Your task to perform on an android device: toggle location history Image 0: 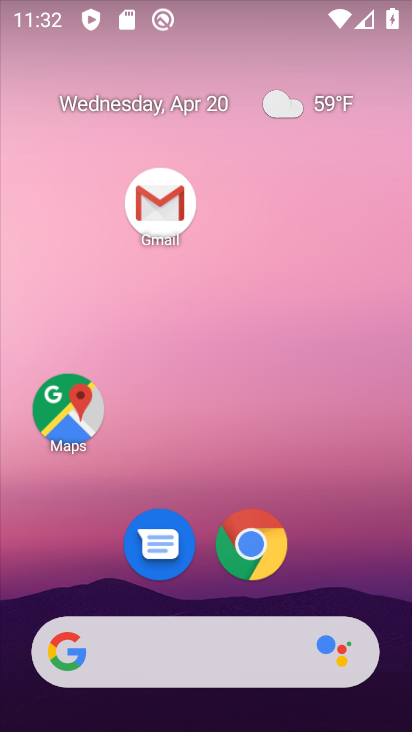
Step 0: drag from (291, 609) to (266, 67)
Your task to perform on an android device: toggle location history Image 1: 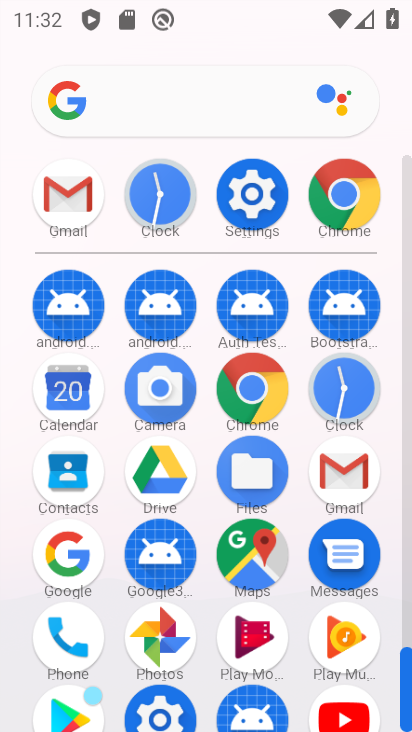
Step 1: click (266, 201)
Your task to perform on an android device: toggle location history Image 2: 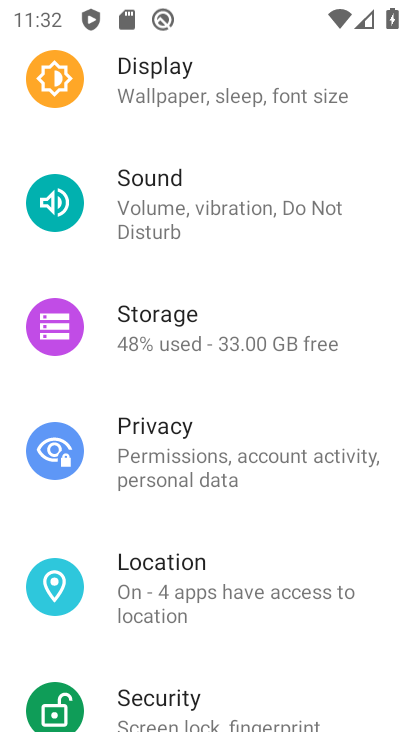
Step 2: click (252, 597)
Your task to perform on an android device: toggle location history Image 3: 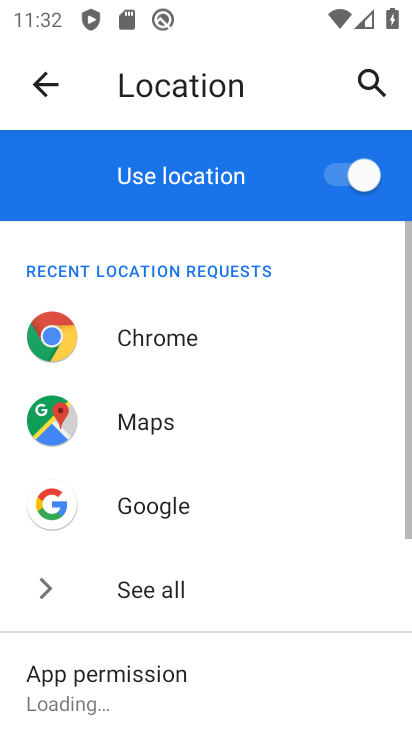
Step 3: drag from (252, 597) to (232, 49)
Your task to perform on an android device: toggle location history Image 4: 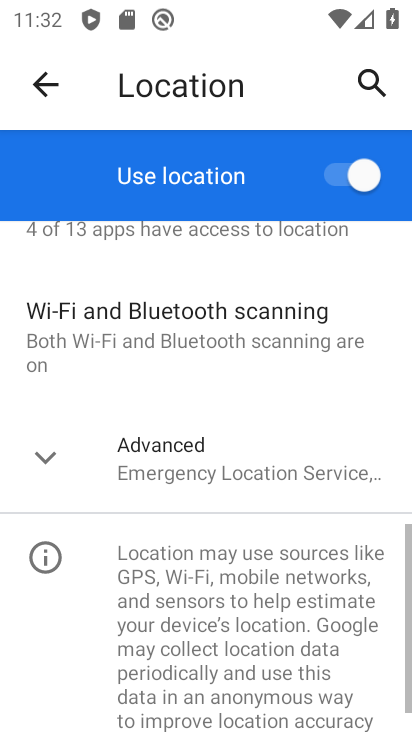
Step 4: click (227, 452)
Your task to perform on an android device: toggle location history Image 5: 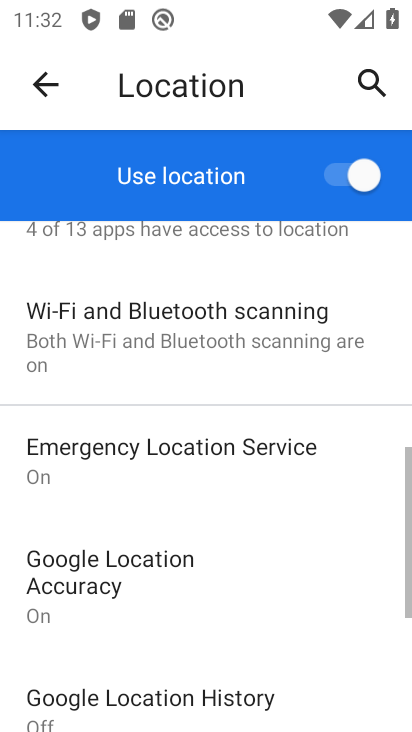
Step 5: drag from (225, 610) to (235, 170)
Your task to perform on an android device: toggle location history Image 6: 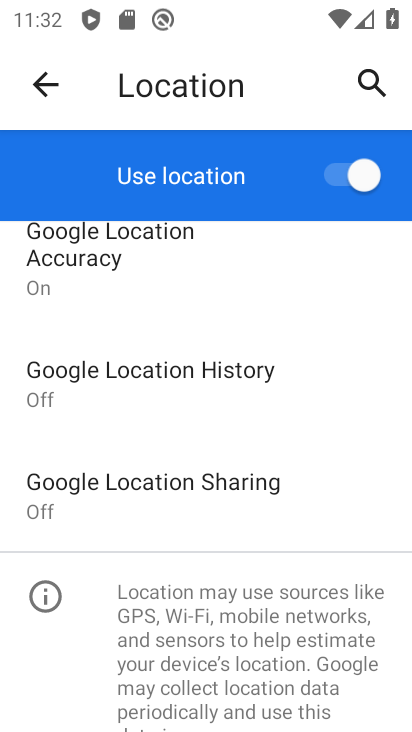
Step 6: click (150, 367)
Your task to perform on an android device: toggle location history Image 7: 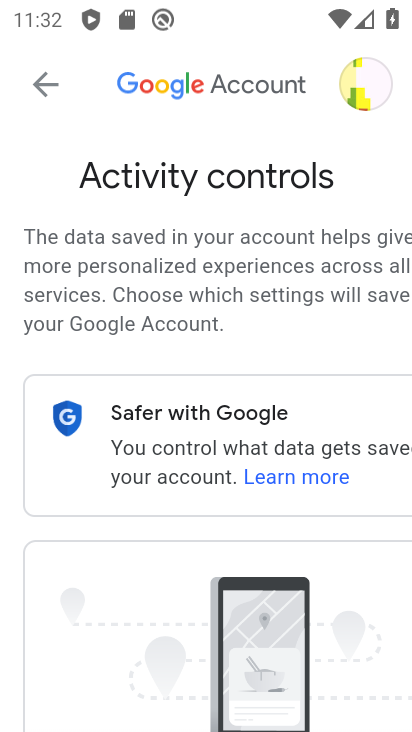
Step 7: drag from (178, 589) to (160, 108)
Your task to perform on an android device: toggle location history Image 8: 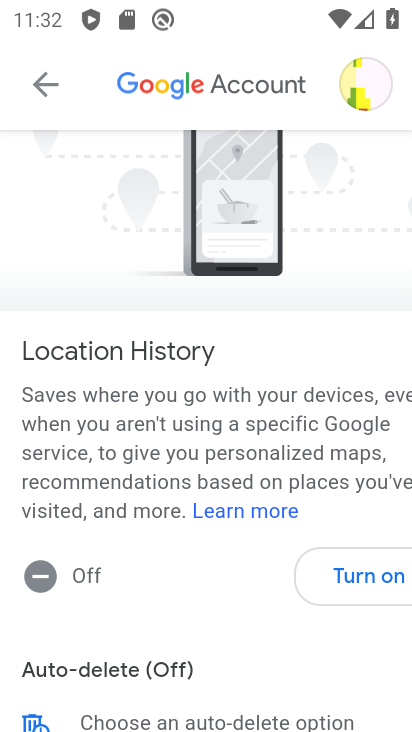
Step 8: drag from (209, 598) to (213, 183)
Your task to perform on an android device: toggle location history Image 9: 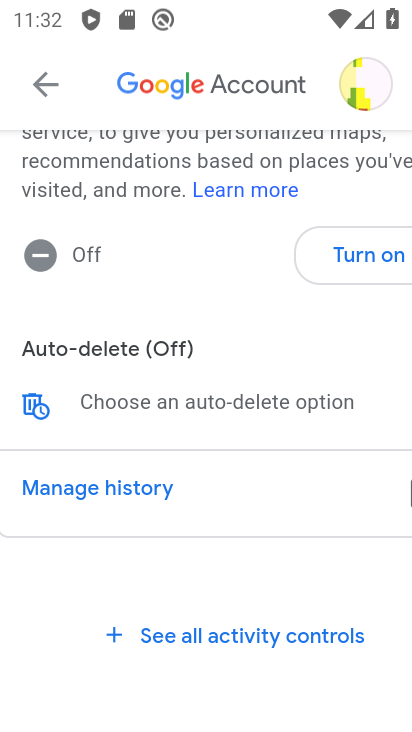
Step 9: click (330, 245)
Your task to perform on an android device: toggle location history Image 10: 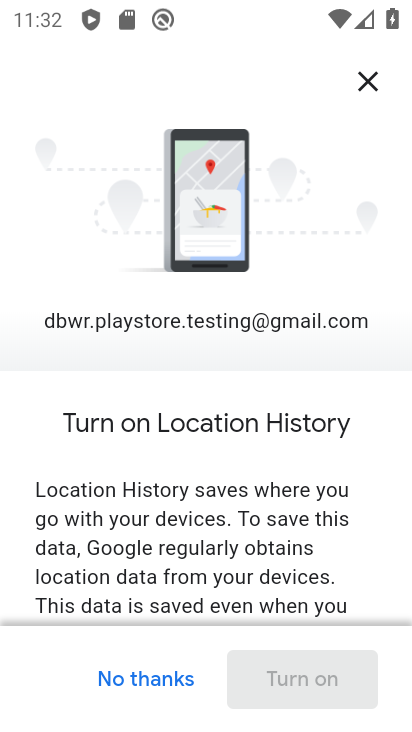
Step 10: drag from (312, 615) to (378, 188)
Your task to perform on an android device: toggle location history Image 11: 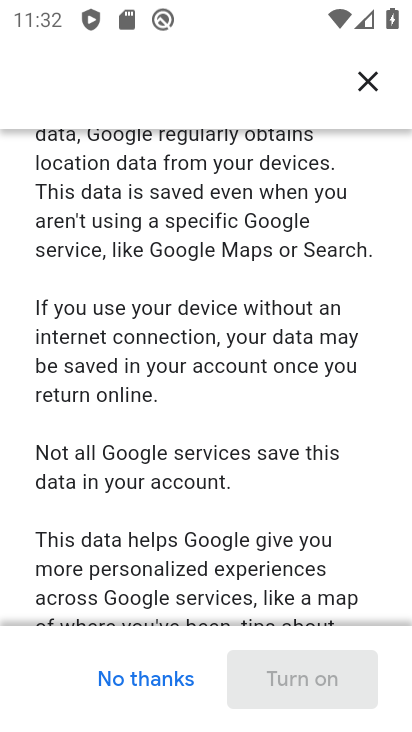
Step 11: drag from (334, 568) to (383, 128)
Your task to perform on an android device: toggle location history Image 12: 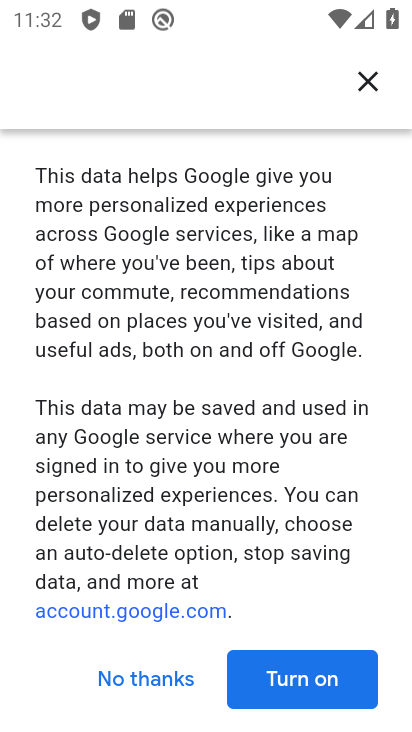
Step 12: click (306, 697)
Your task to perform on an android device: toggle location history Image 13: 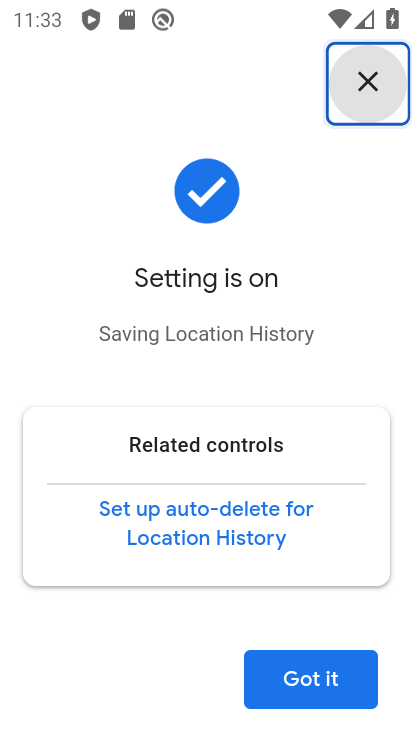
Step 13: click (306, 697)
Your task to perform on an android device: toggle location history Image 14: 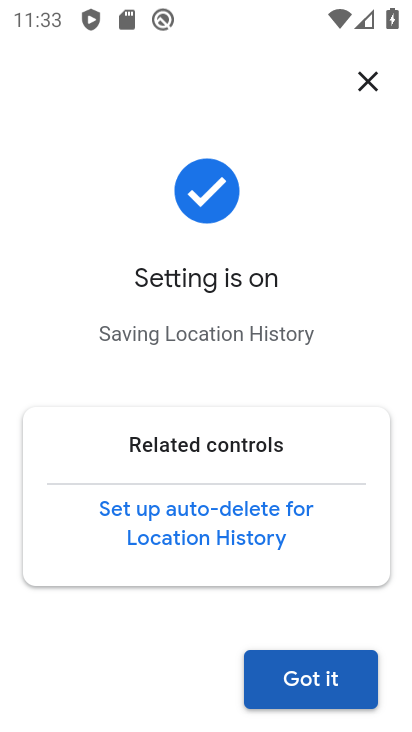
Step 14: click (356, 655)
Your task to perform on an android device: toggle location history Image 15: 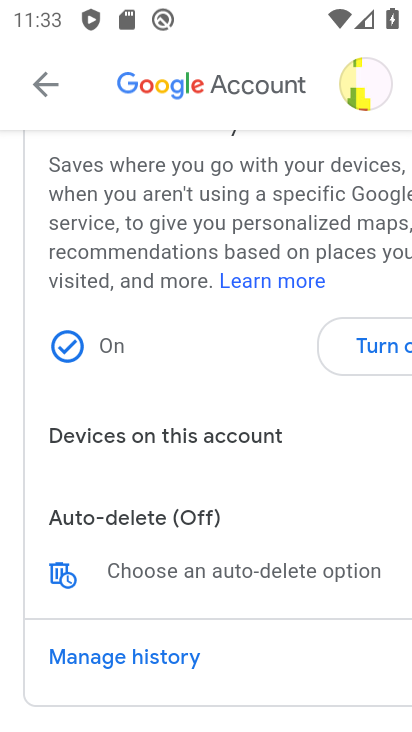
Step 15: task complete